Your task to perform on an android device: Open internet settings Image 0: 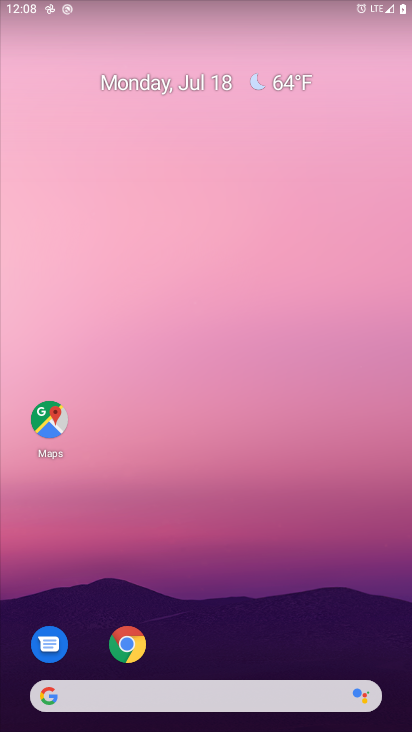
Step 0: press home button
Your task to perform on an android device: Open internet settings Image 1: 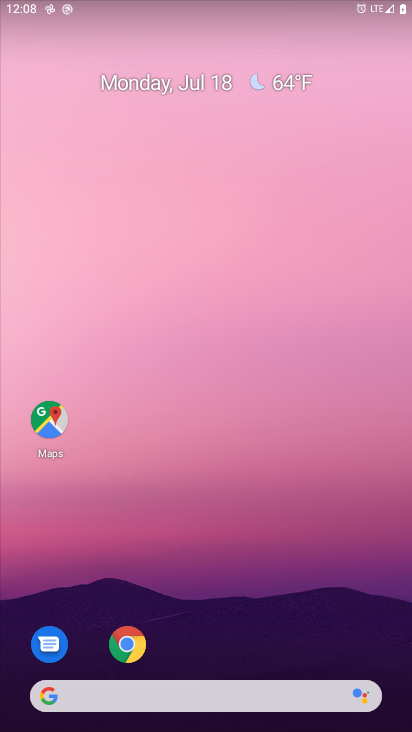
Step 1: drag from (300, 615) to (279, 150)
Your task to perform on an android device: Open internet settings Image 2: 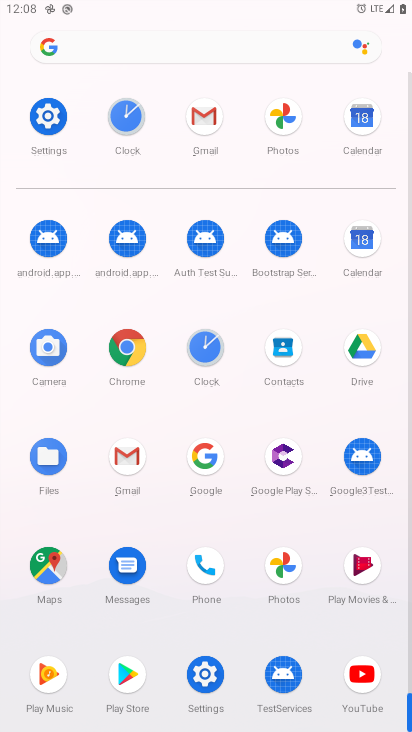
Step 2: click (45, 103)
Your task to perform on an android device: Open internet settings Image 3: 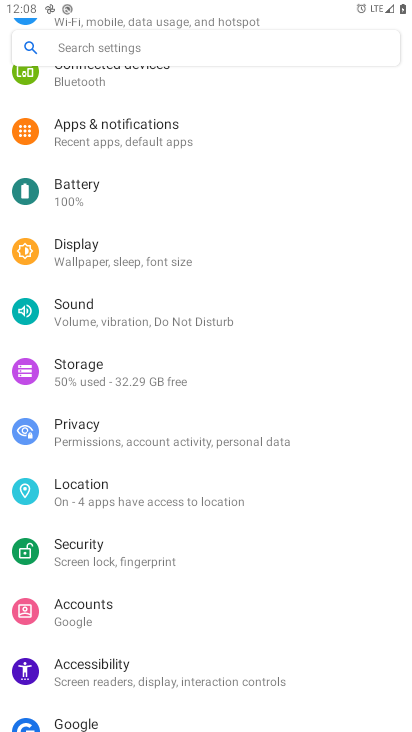
Step 3: drag from (210, 110) to (177, 518)
Your task to perform on an android device: Open internet settings Image 4: 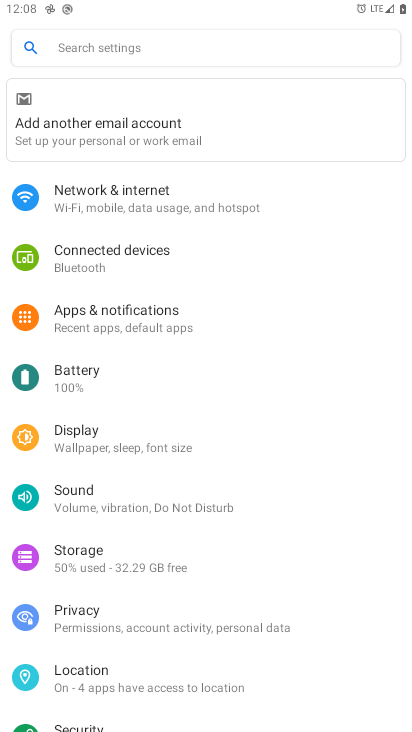
Step 4: click (120, 197)
Your task to perform on an android device: Open internet settings Image 5: 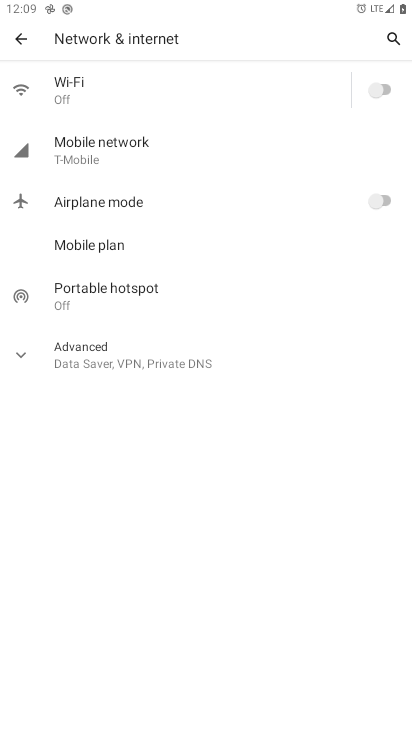
Step 5: task complete